Your task to perform on an android device: Search for Mexican restaurants on Maps Image 0: 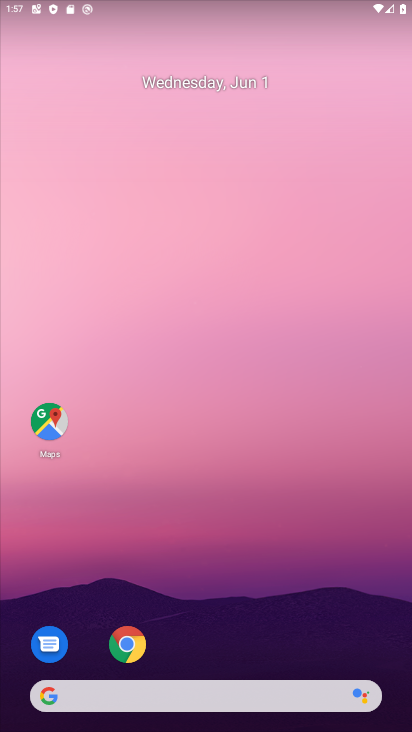
Step 0: click (49, 425)
Your task to perform on an android device: Search for Mexican restaurants on Maps Image 1: 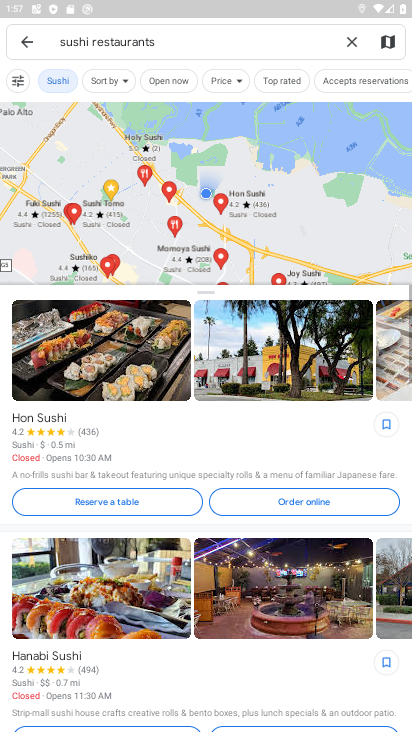
Step 1: click (357, 40)
Your task to perform on an android device: Search for Mexican restaurants on Maps Image 2: 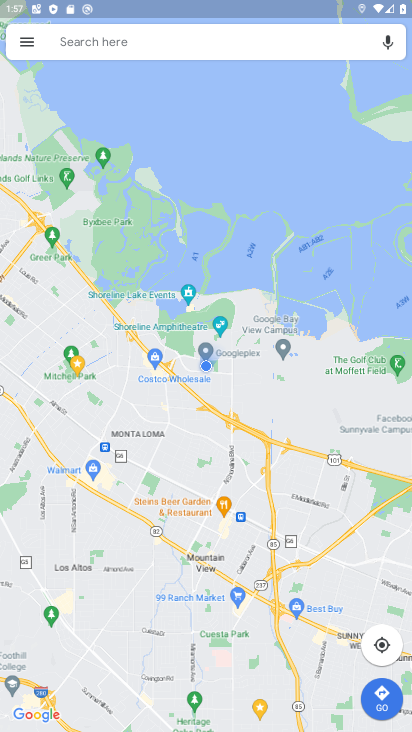
Step 2: type "Mexican restaurants"
Your task to perform on an android device: Search for Mexican restaurants on Maps Image 3: 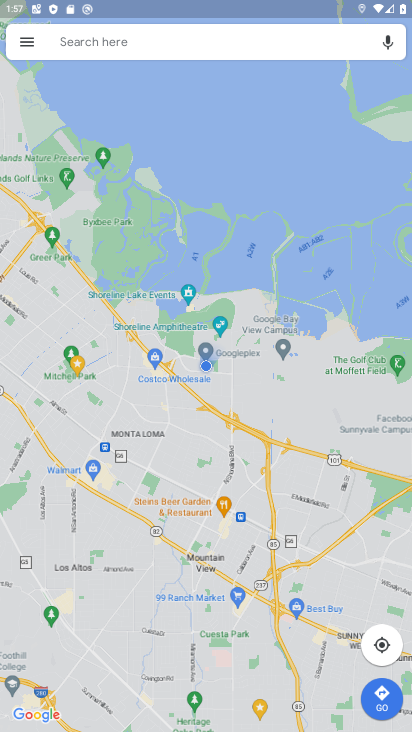
Step 3: click (113, 43)
Your task to perform on an android device: Search for Mexican restaurants on Maps Image 4: 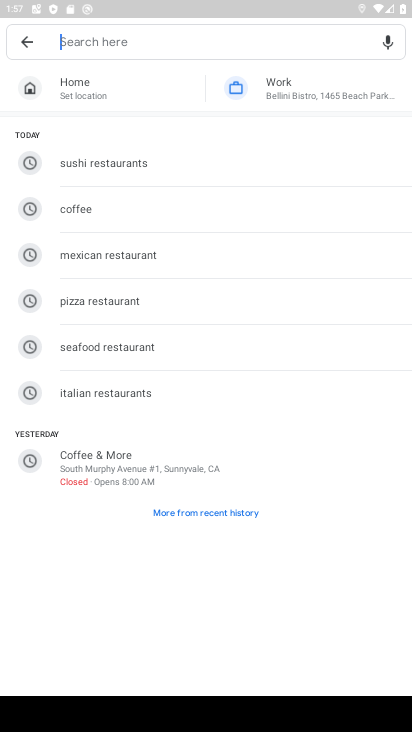
Step 4: type "Mexican restaurants"
Your task to perform on an android device: Search for Mexican restaurants on Maps Image 5: 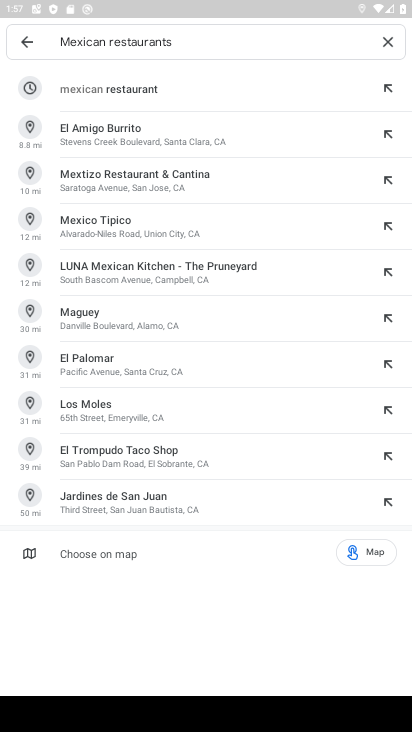
Step 5: click (148, 84)
Your task to perform on an android device: Search for Mexican restaurants on Maps Image 6: 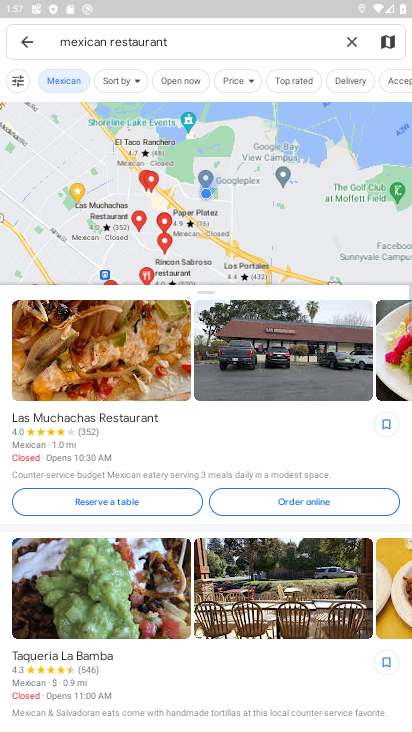
Step 6: task complete